Your task to perform on an android device: change keyboard looks Image 0: 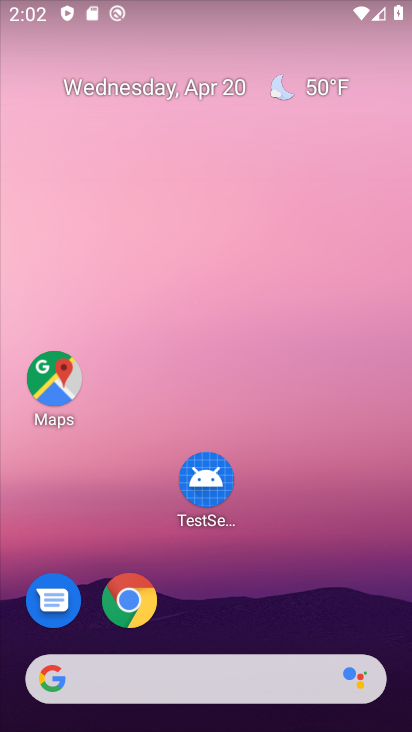
Step 0: drag from (248, 610) to (287, 149)
Your task to perform on an android device: change keyboard looks Image 1: 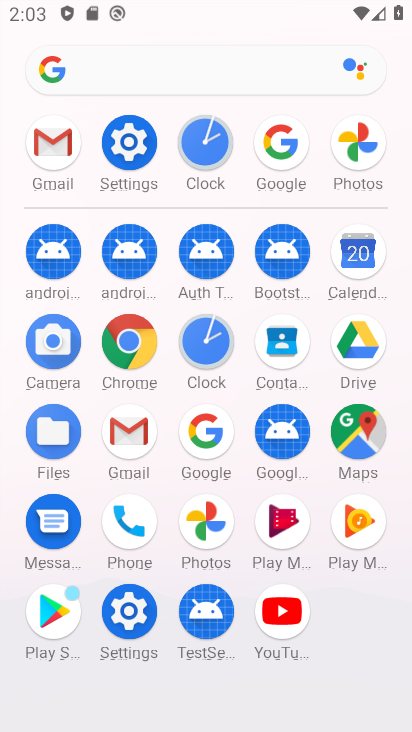
Step 1: click (135, 608)
Your task to perform on an android device: change keyboard looks Image 2: 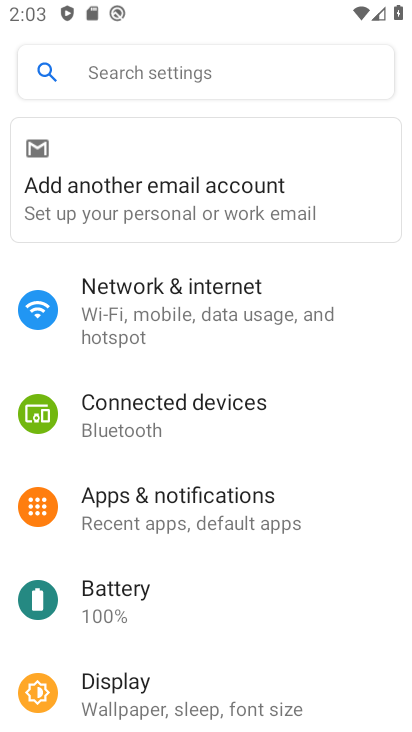
Step 2: drag from (222, 610) to (232, 86)
Your task to perform on an android device: change keyboard looks Image 3: 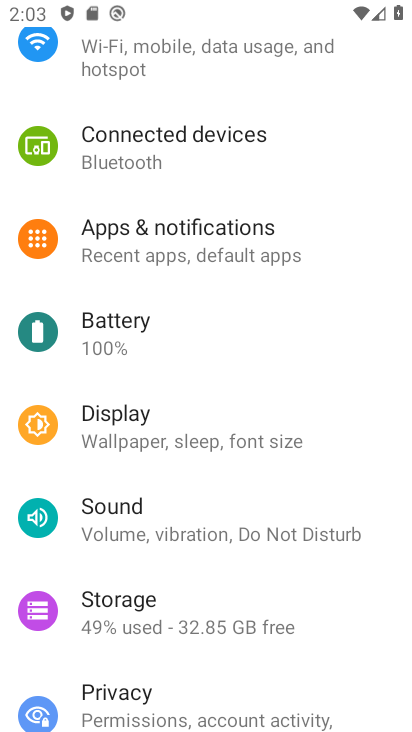
Step 3: drag from (243, 580) to (292, 81)
Your task to perform on an android device: change keyboard looks Image 4: 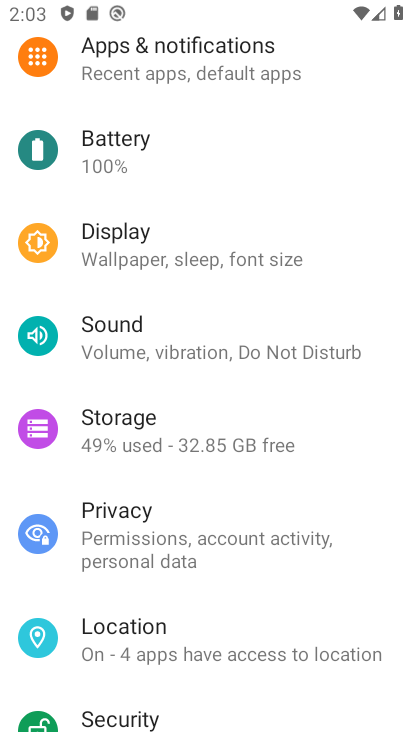
Step 4: drag from (222, 629) to (292, 192)
Your task to perform on an android device: change keyboard looks Image 5: 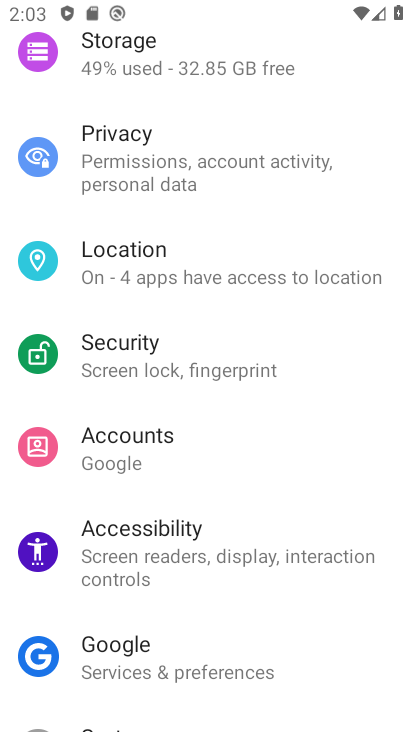
Step 5: drag from (208, 636) to (248, 269)
Your task to perform on an android device: change keyboard looks Image 6: 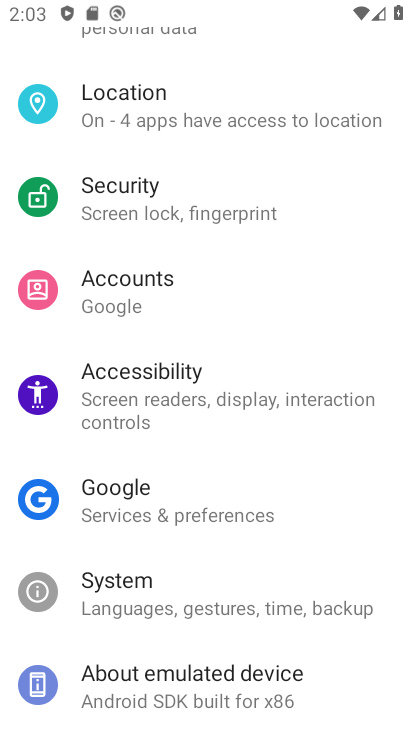
Step 6: click (177, 604)
Your task to perform on an android device: change keyboard looks Image 7: 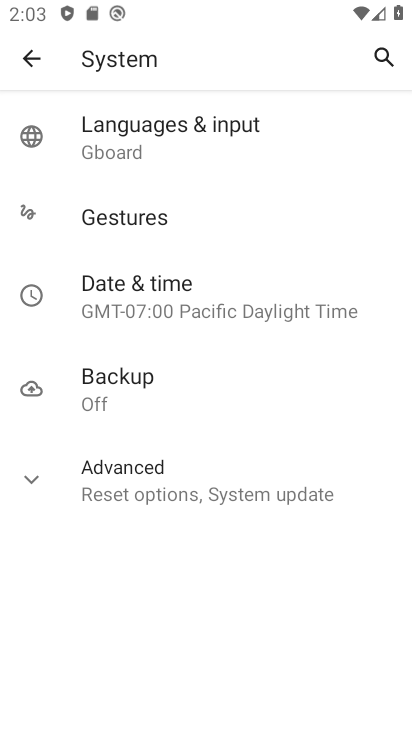
Step 7: click (188, 144)
Your task to perform on an android device: change keyboard looks Image 8: 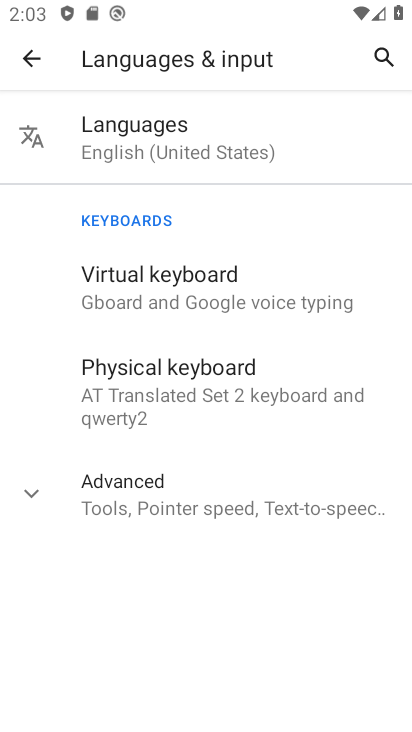
Step 8: click (202, 291)
Your task to perform on an android device: change keyboard looks Image 9: 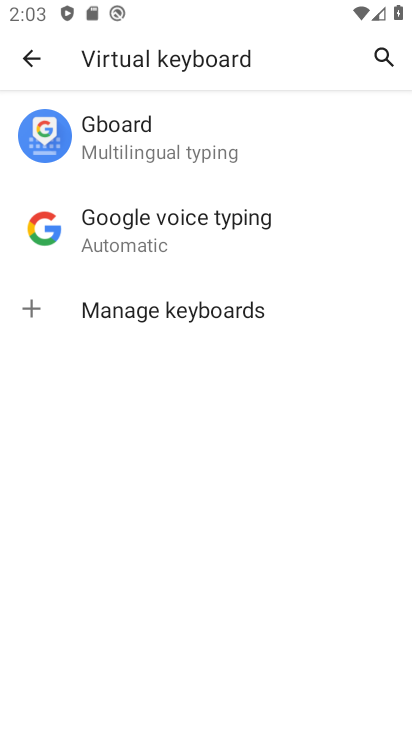
Step 9: click (140, 132)
Your task to perform on an android device: change keyboard looks Image 10: 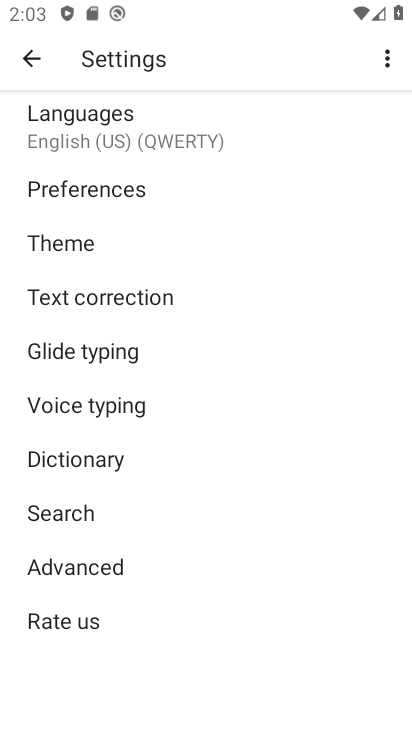
Step 10: click (113, 217)
Your task to perform on an android device: change keyboard looks Image 11: 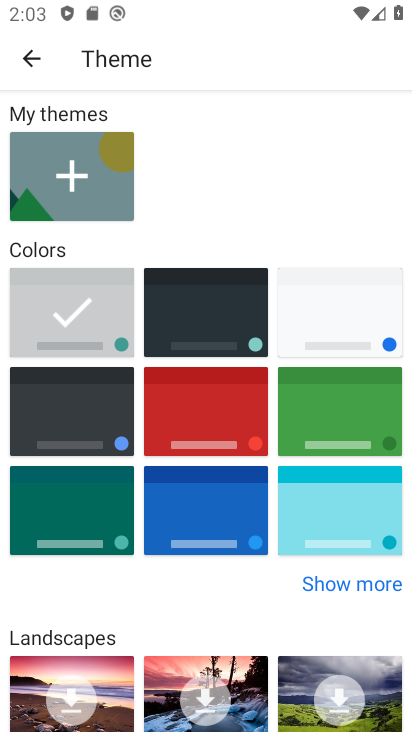
Step 11: click (254, 349)
Your task to perform on an android device: change keyboard looks Image 12: 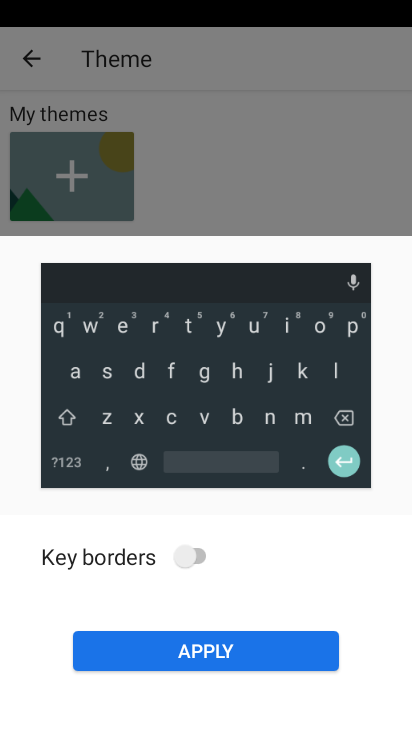
Step 12: click (161, 548)
Your task to perform on an android device: change keyboard looks Image 13: 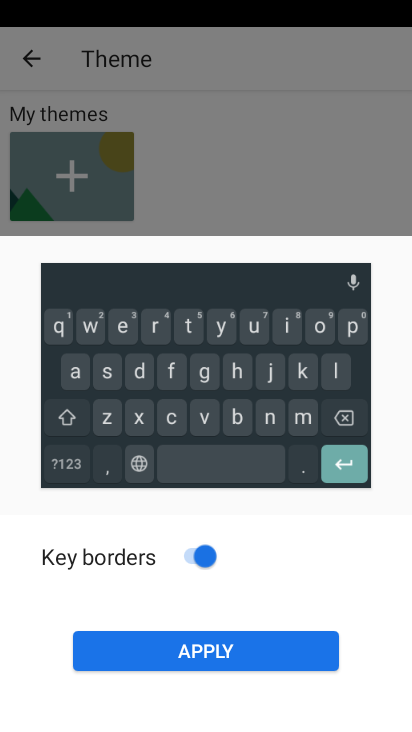
Step 13: click (248, 654)
Your task to perform on an android device: change keyboard looks Image 14: 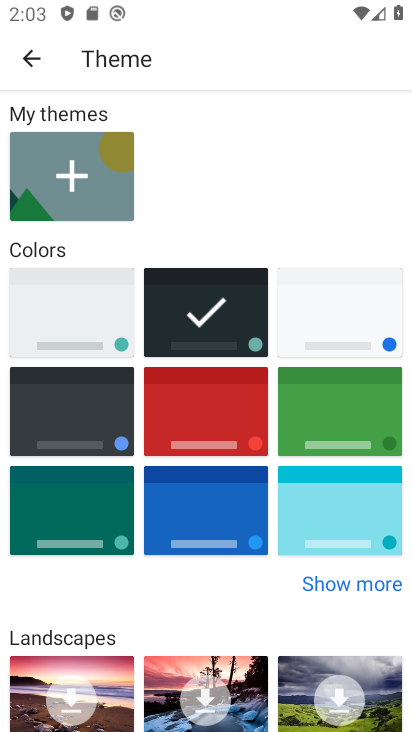
Step 14: task complete